Your task to perform on an android device: star an email in the gmail app Image 0: 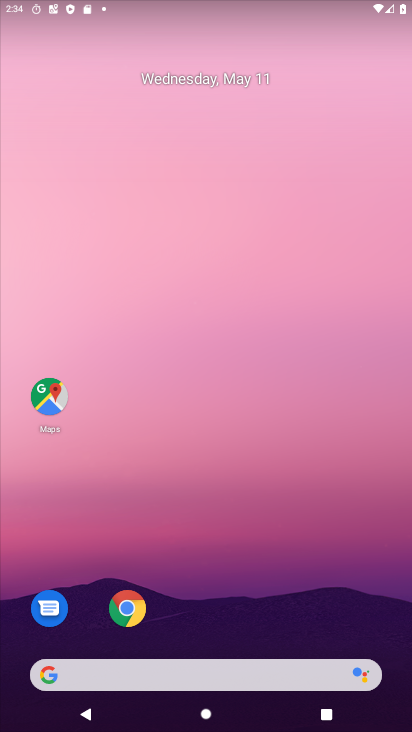
Step 0: drag from (248, 615) to (281, 219)
Your task to perform on an android device: star an email in the gmail app Image 1: 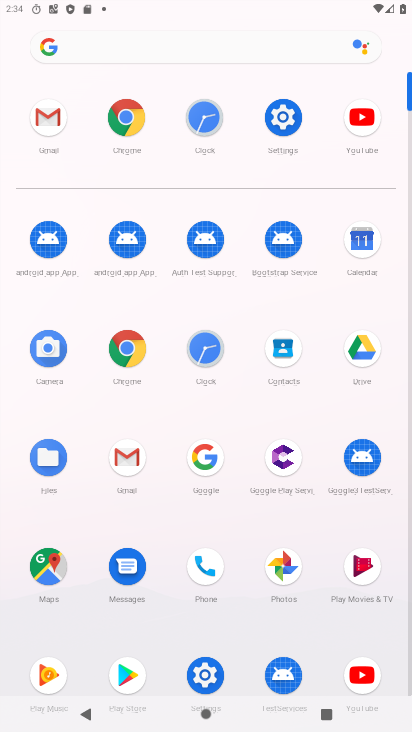
Step 1: click (117, 457)
Your task to perform on an android device: star an email in the gmail app Image 2: 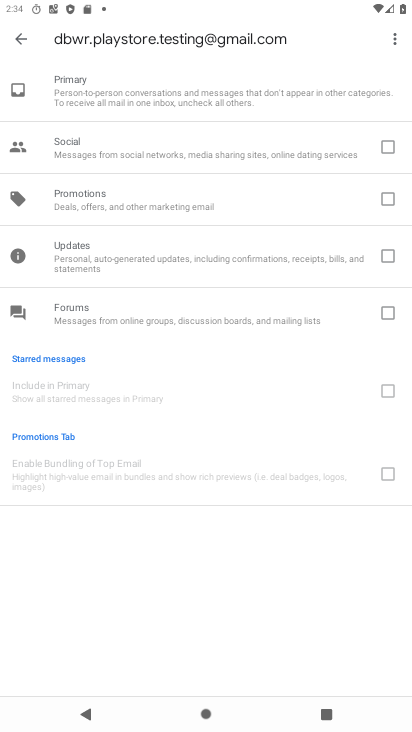
Step 2: click (23, 37)
Your task to perform on an android device: star an email in the gmail app Image 3: 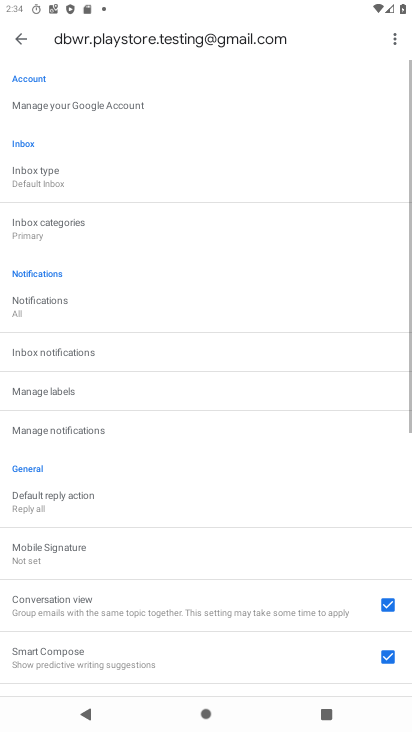
Step 3: click (23, 37)
Your task to perform on an android device: star an email in the gmail app Image 4: 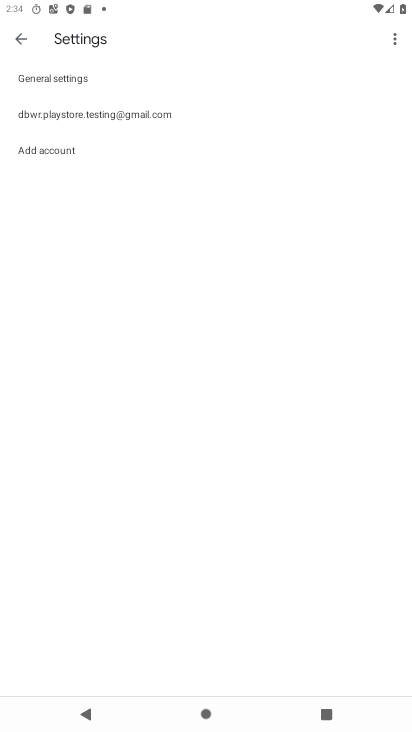
Step 4: click (23, 37)
Your task to perform on an android device: star an email in the gmail app Image 5: 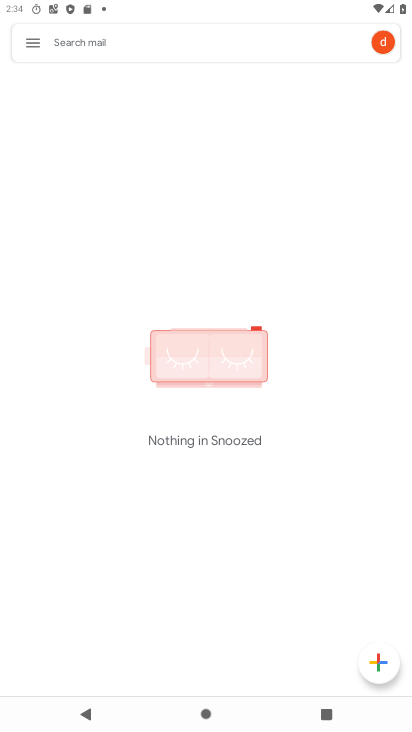
Step 5: click (25, 38)
Your task to perform on an android device: star an email in the gmail app Image 6: 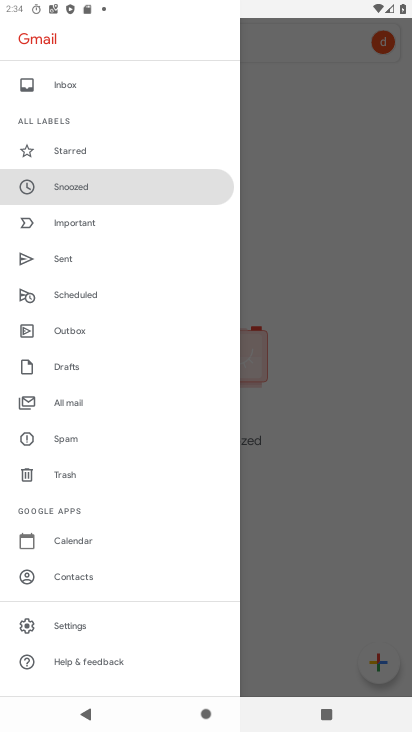
Step 6: click (73, 397)
Your task to perform on an android device: star an email in the gmail app Image 7: 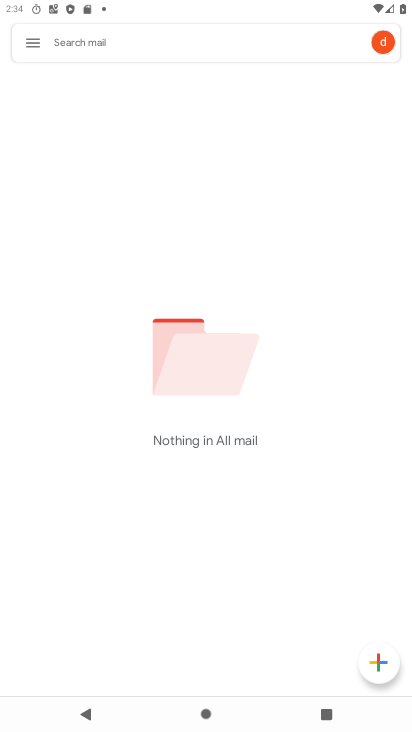
Step 7: task complete